Your task to perform on an android device: Open calendar and show me the first week of next month Image 0: 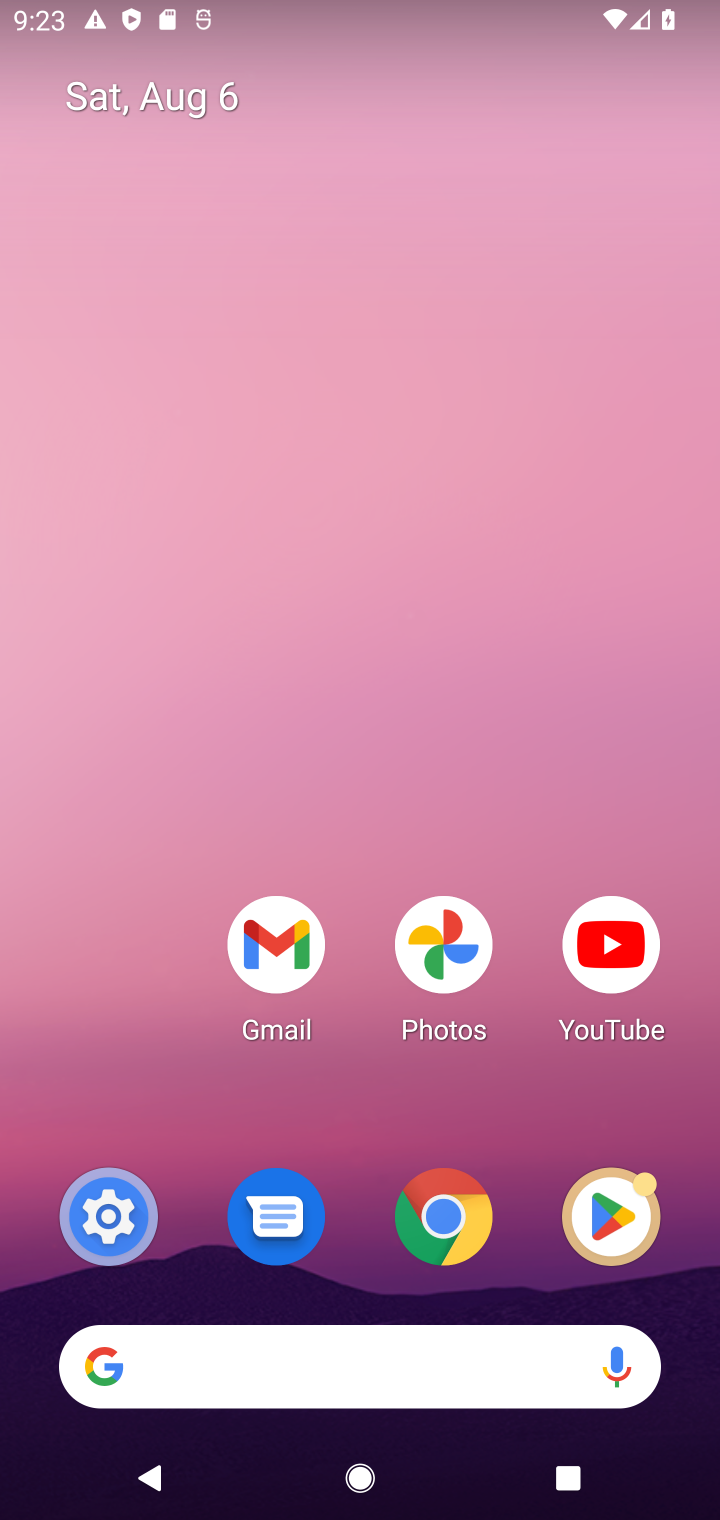
Step 0: press home button
Your task to perform on an android device: Open calendar and show me the first week of next month Image 1: 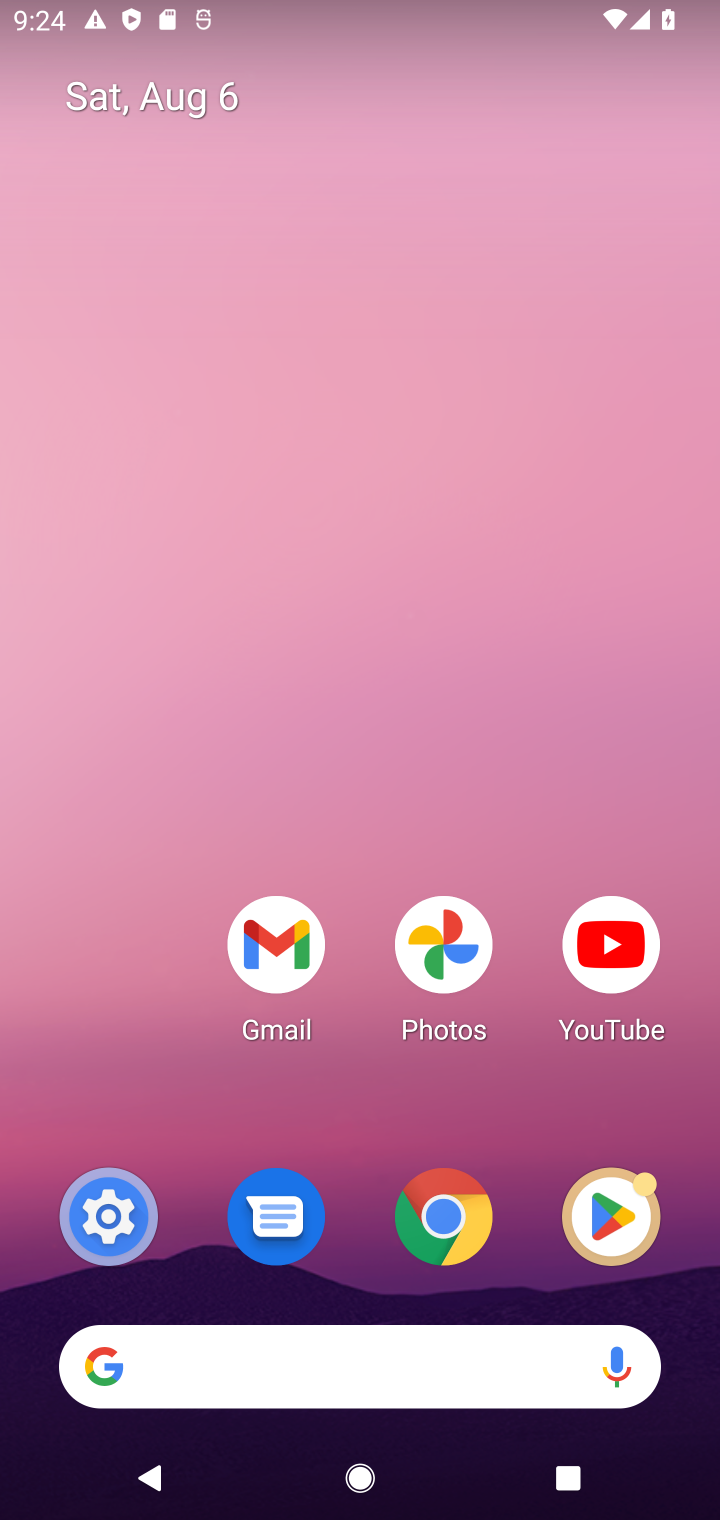
Step 1: drag from (424, 1333) to (532, 573)
Your task to perform on an android device: Open calendar and show me the first week of next month Image 2: 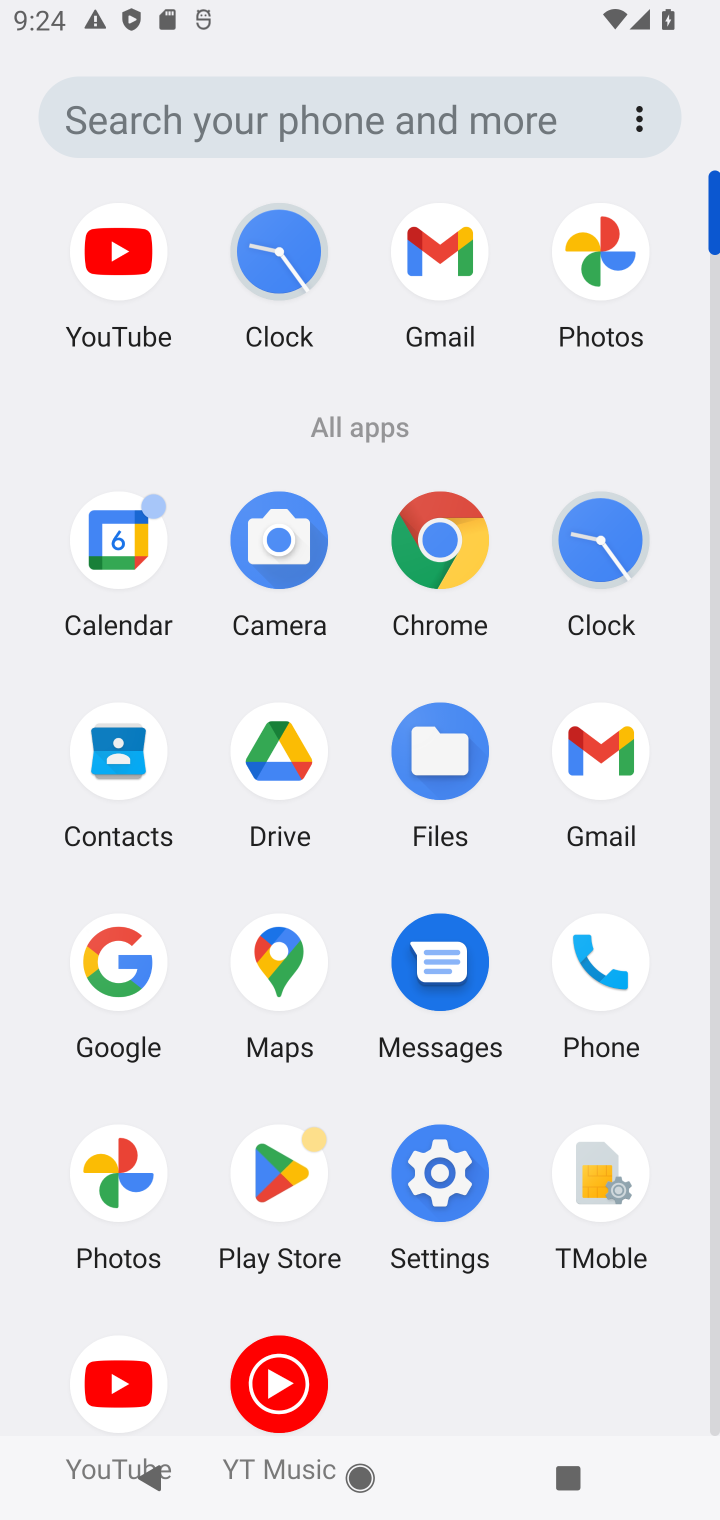
Step 2: click (120, 533)
Your task to perform on an android device: Open calendar and show me the first week of next month Image 3: 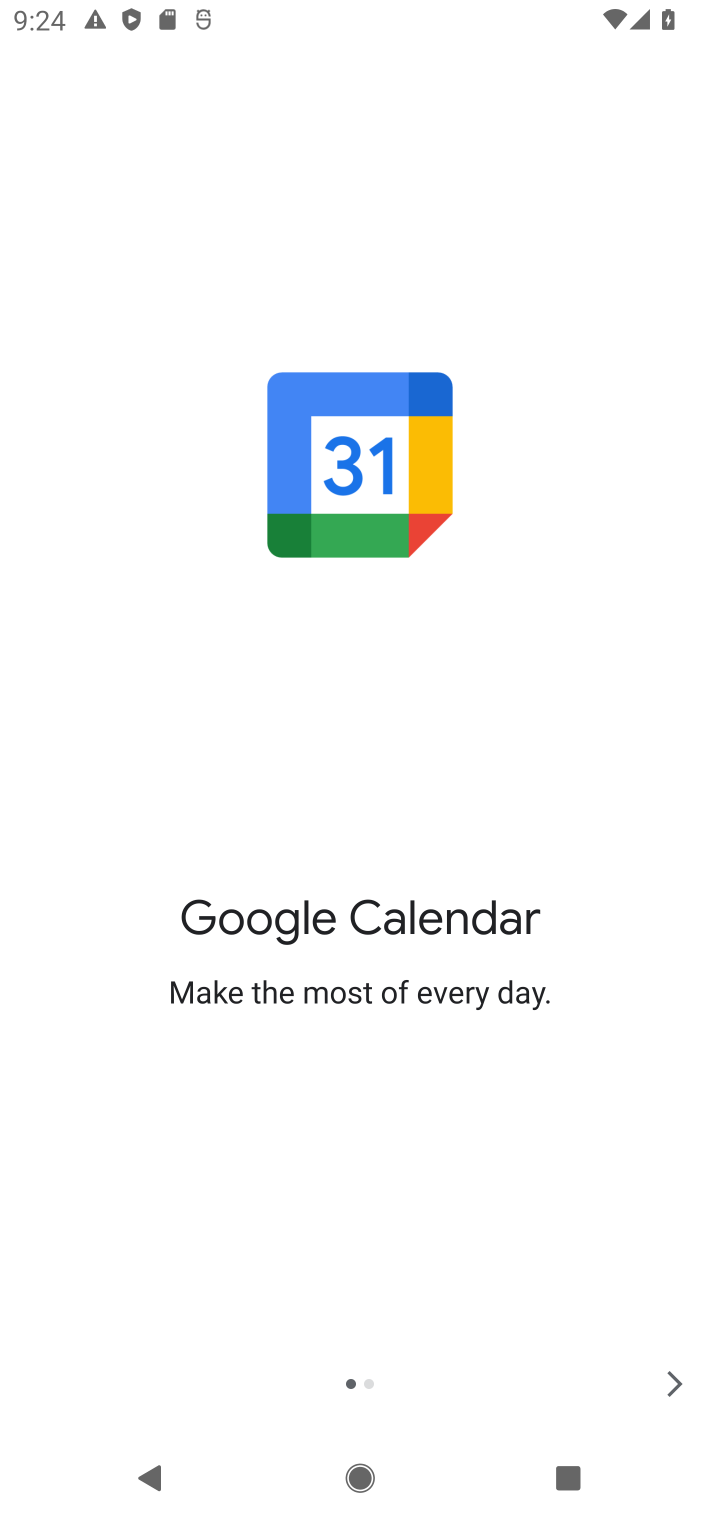
Step 3: click (679, 1386)
Your task to perform on an android device: Open calendar and show me the first week of next month Image 4: 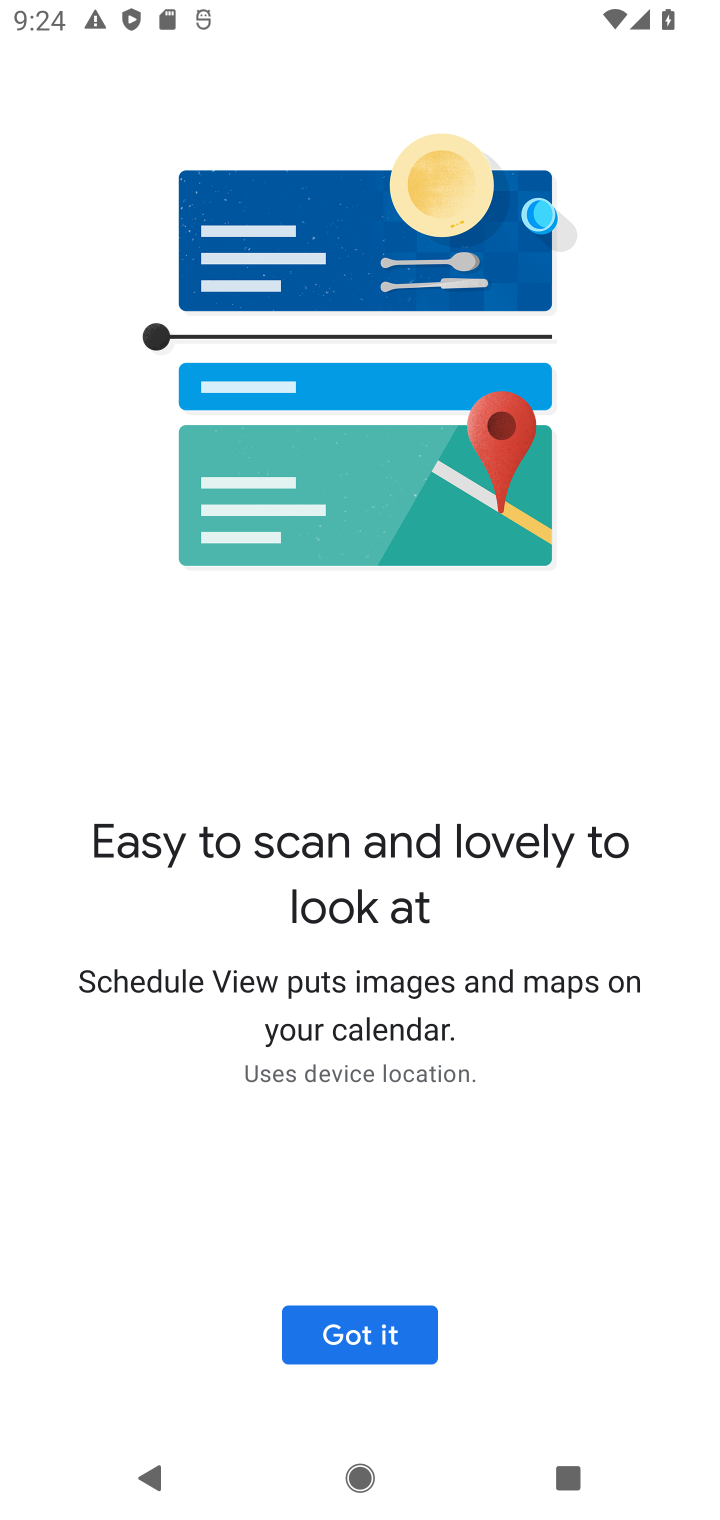
Step 4: click (679, 1386)
Your task to perform on an android device: Open calendar and show me the first week of next month Image 5: 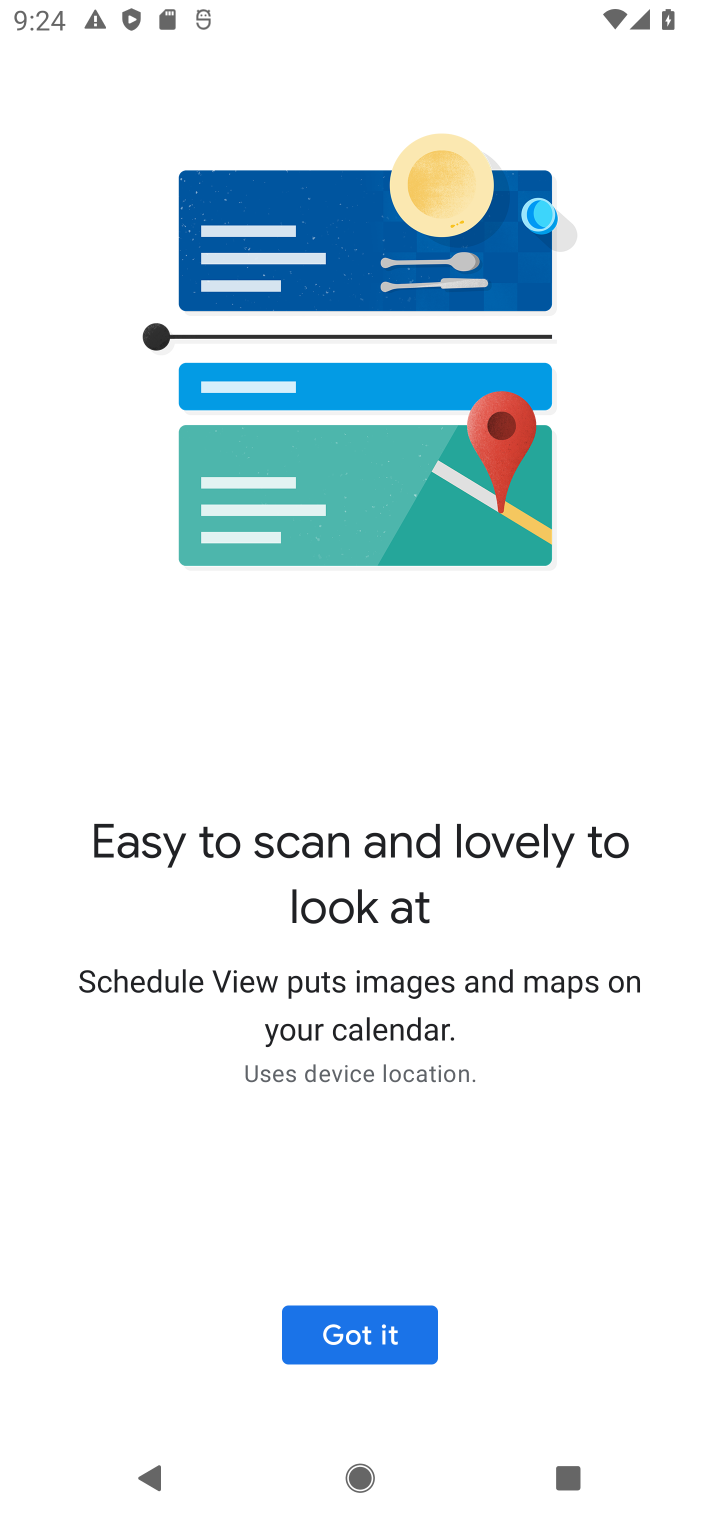
Step 5: click (371, 1336)
Your task to perform on an android device: Open calendar and show me the first week of next month Image 6: 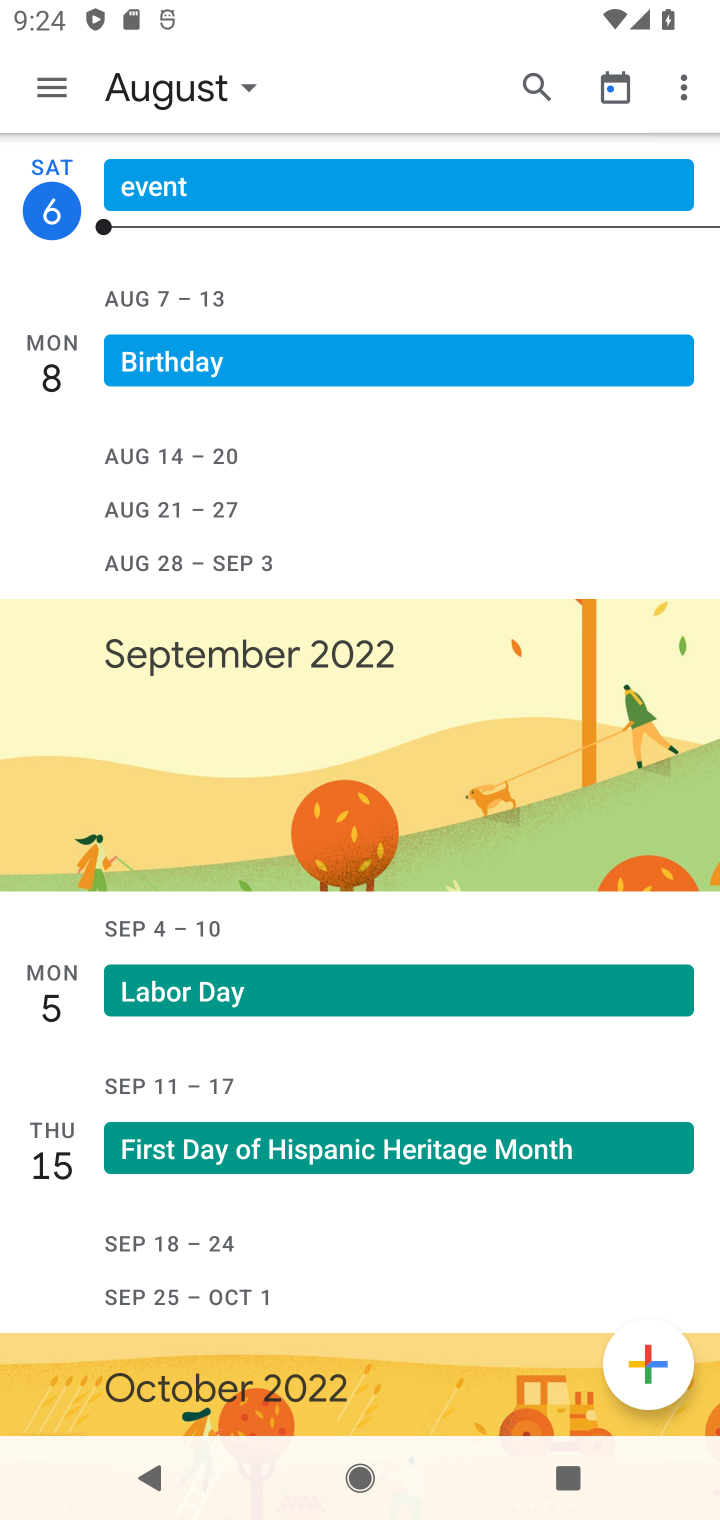
Step 6: click (224, 90)
Your task to perform on an android device: Open calendar and show me the first week of next month Image 7: 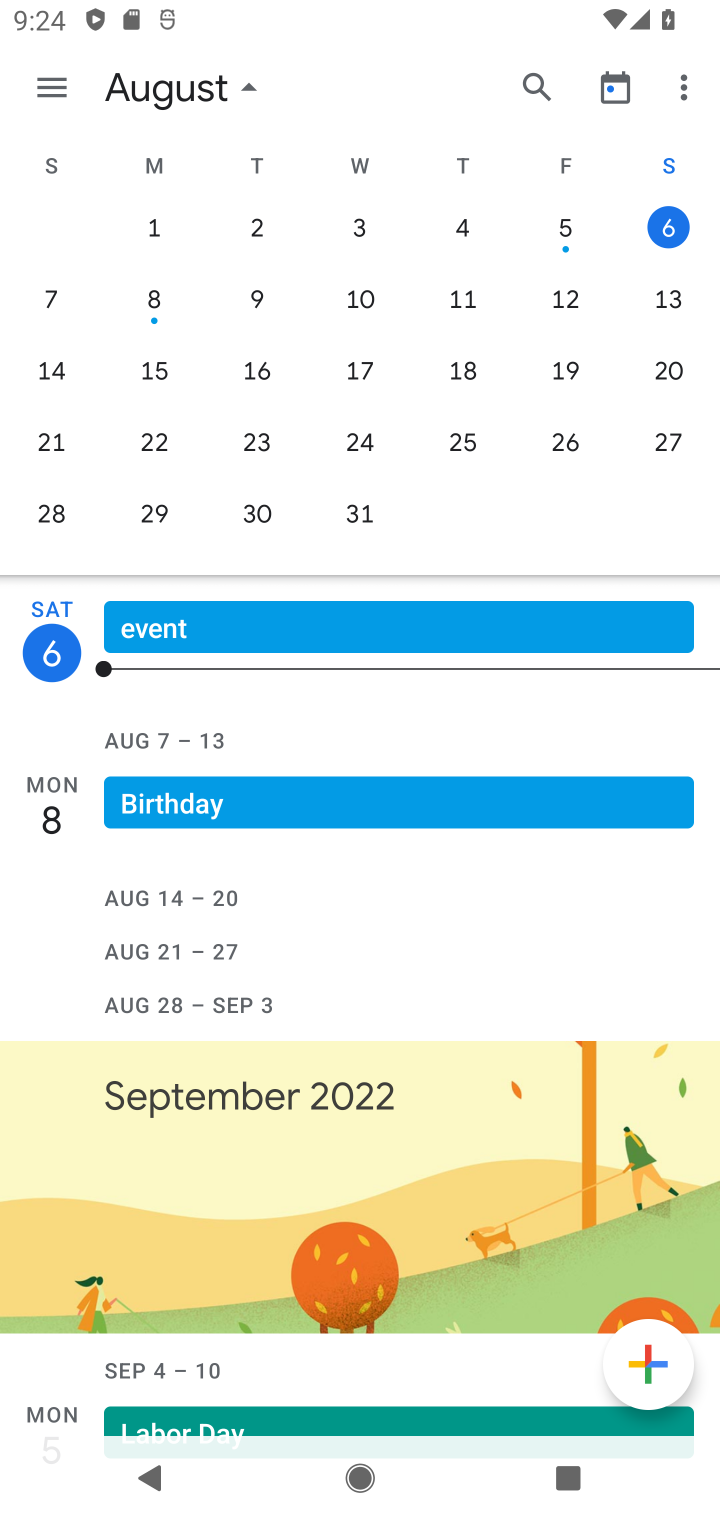
Step 7: drag from (482, 373) to (56, 280)
Your task to perform on an android device: Open calendar and show me the first week of next month Image 8: 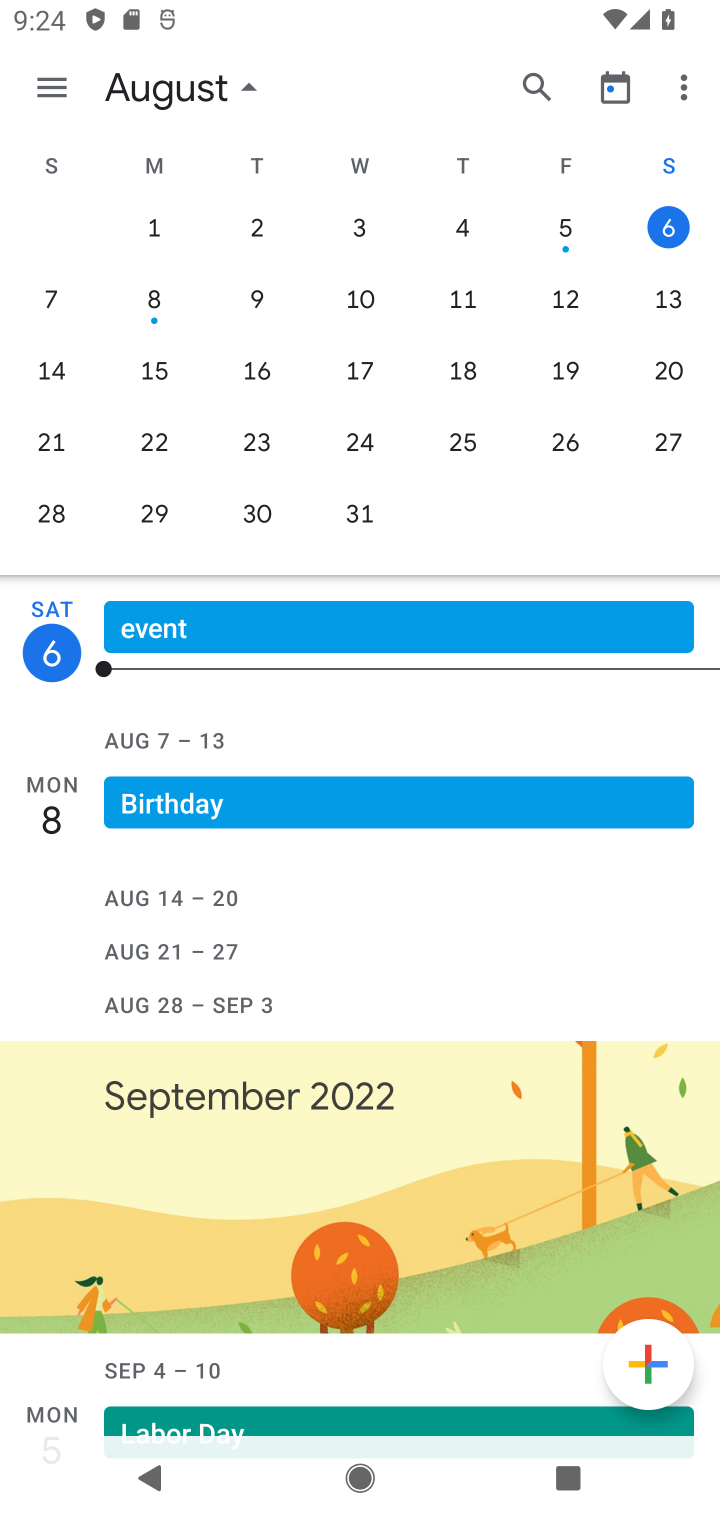
Step 8: drag from (680, 340) to (113, 404)
Your task to perform on an android device: Open calendar and show me the first week of next month Image 9: 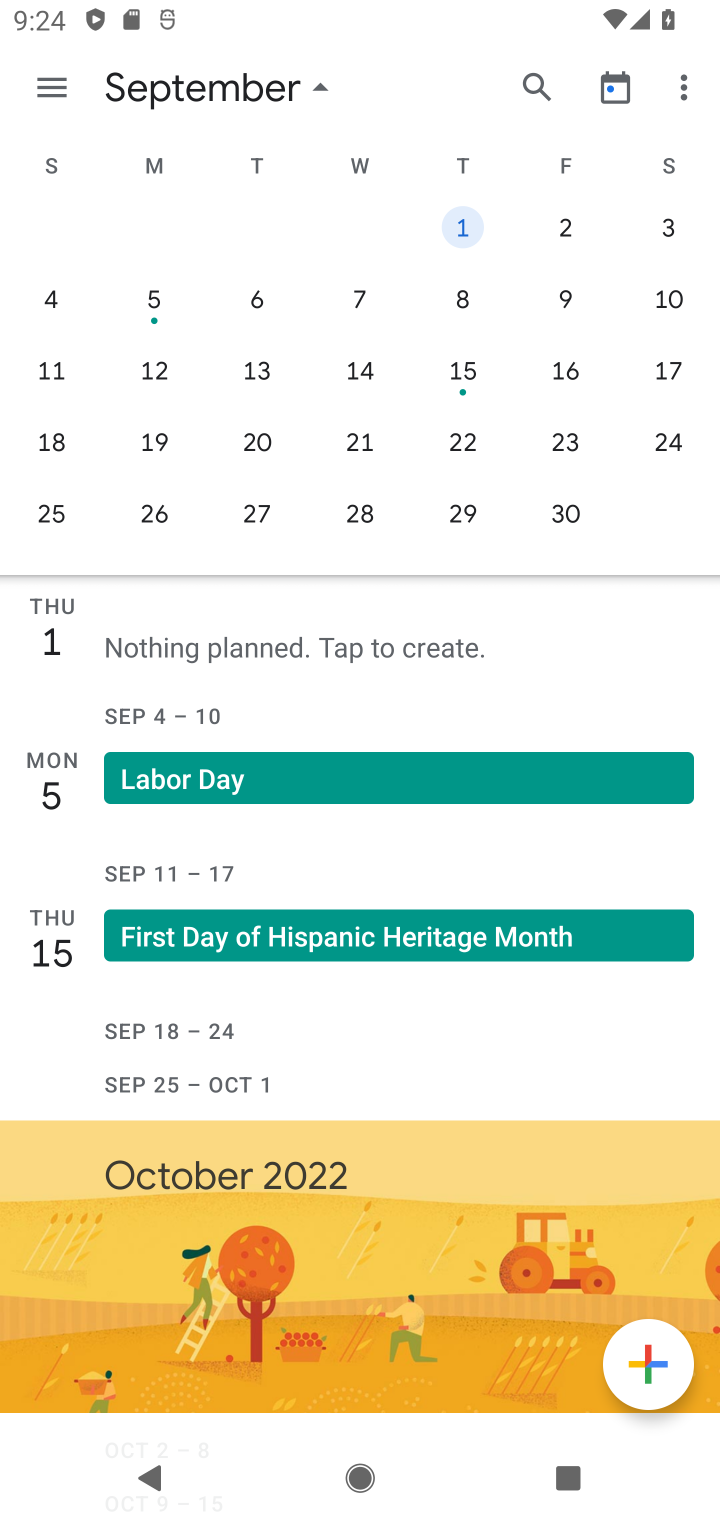
Step 9: click (474, 214)
Your task to perform on an android device: Open calendar and show me the first week of next month Image 10: 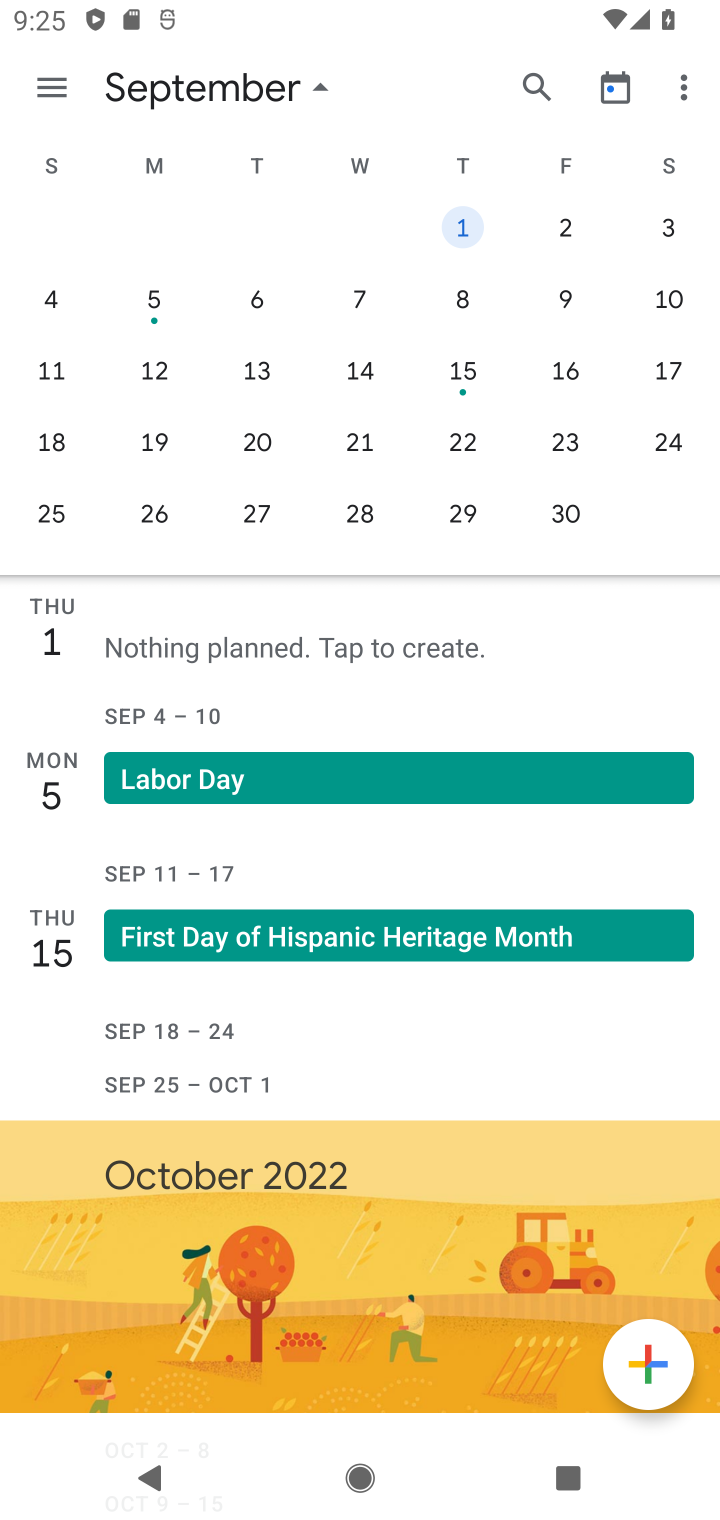
Step 10: task complete